Your task to perform on an android device: toggle translation in the chrome app Image 0: 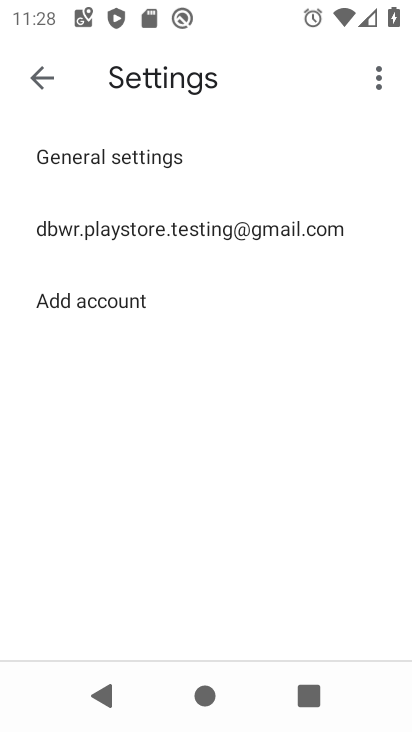
Step 0: press home button
Your task to perform on an android device: toggle translation in the chrome app Image 1: 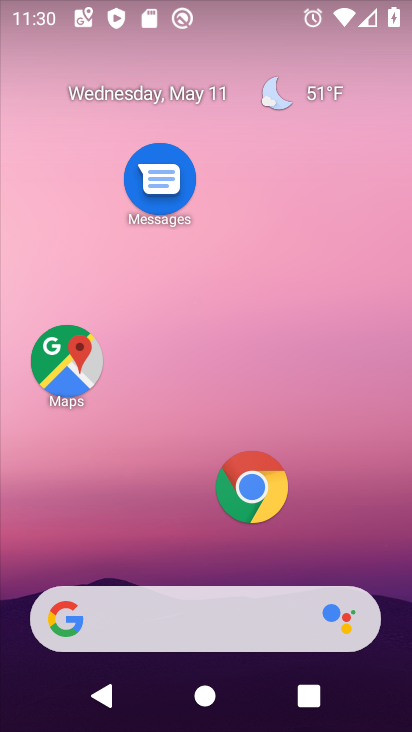
Step 1: click (246, 501)
Your task to perform on an android device: toggle translation in the chrome app Image 2: 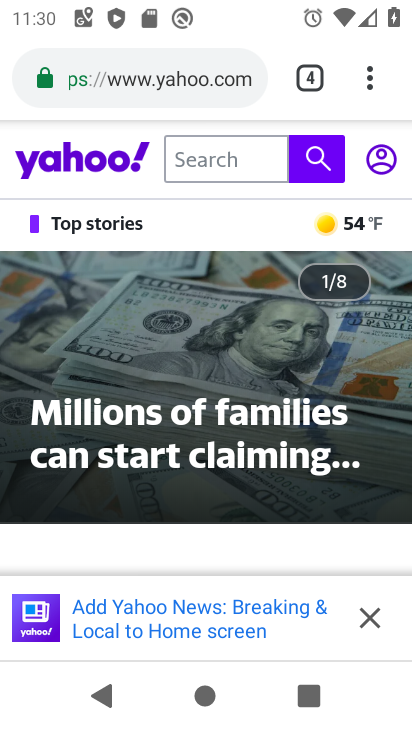
Step 2: drag from (364, 71) to (89, 538)
Your task to perform on an android device: toggle translation in the chrome app Image 3: 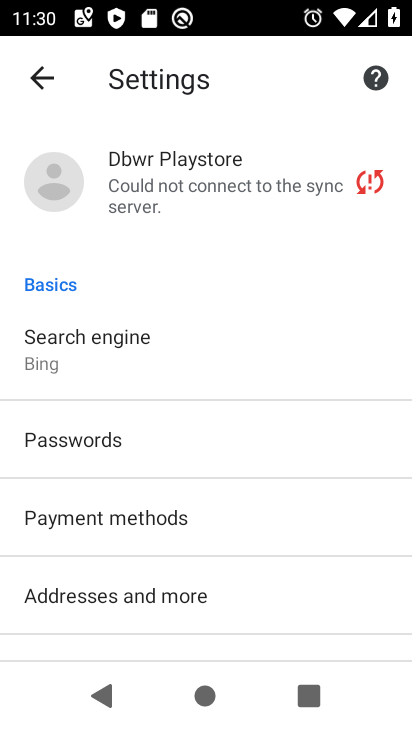
Step 3: drag from (197, 557) to (219, 314)
Your task to perform on an android device: toggle translation in the chrome app Image 4: 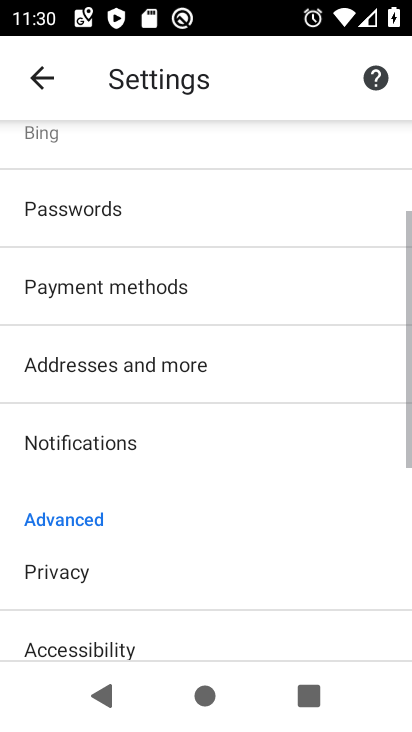
Step 4: drag from (133, 577) to (199, 284)
Your task to perform on an android device: toggle translation in the chrome app Image 5: 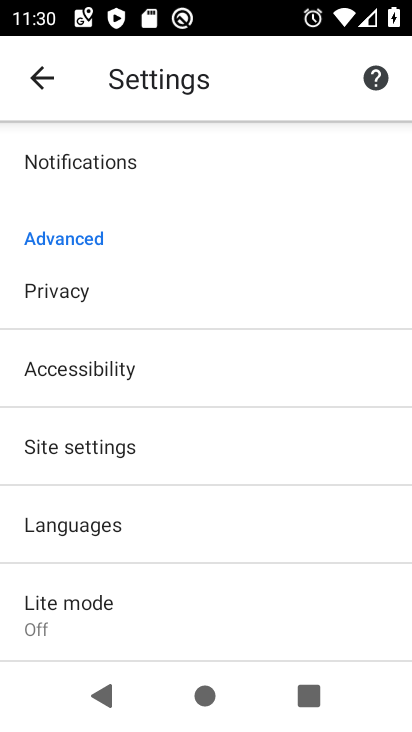
Step 5: click (154, 506)
Your task to perform on an android device: toggle translation in the chrome app Image 6: 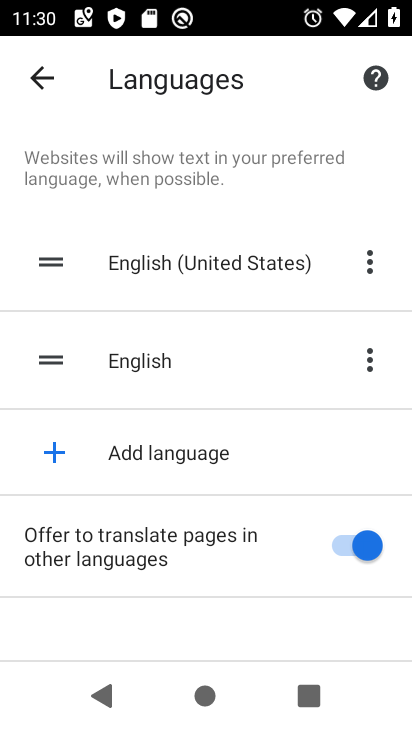
Step 6: click (341, 547)
Your task to perform on an android device: toggle translation in the chrome app Image 7: 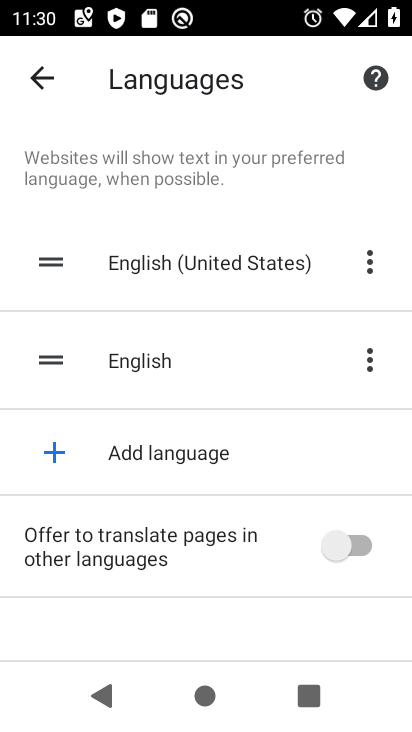
Step 7: task complete